Your task to perform on an android device: Open Amazon Image 0: 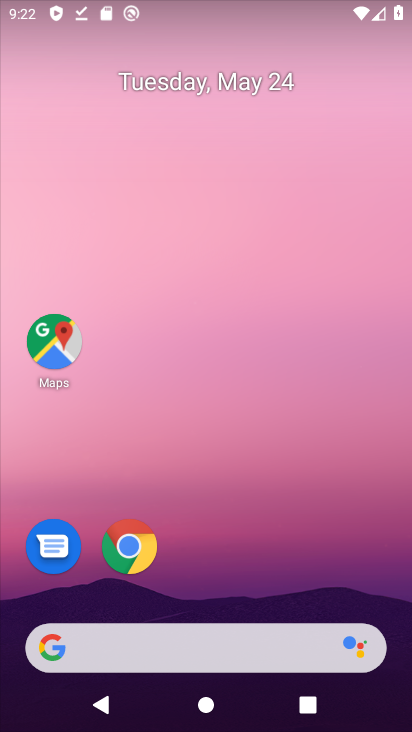
Step 0: click (123, 549)
Your task to perform on an android device: Open Amazon Image 1: 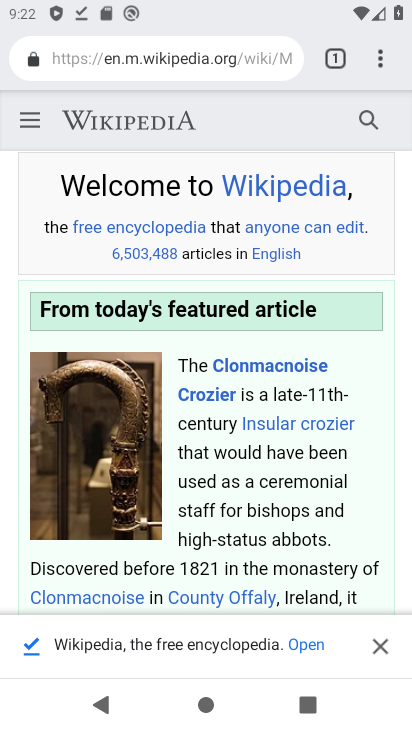
Step 1: click (382, 58)
Your task to perform on an android device: Open Amazon Image 2: 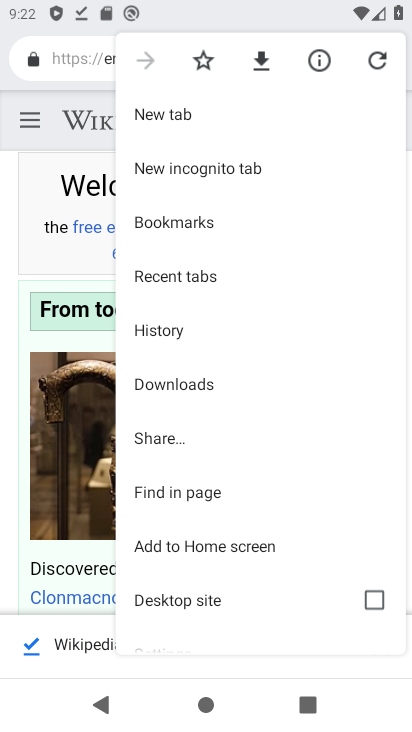
Step 2: click (172, 111)
Your task to perform on an android device: Open Amazon Image 3: 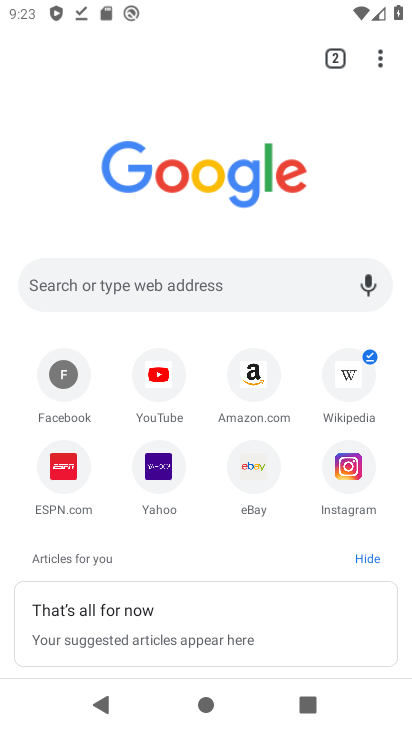
Step 3: click (257, 376)
Your task to perform on an android device: Open Amazon Image 4: 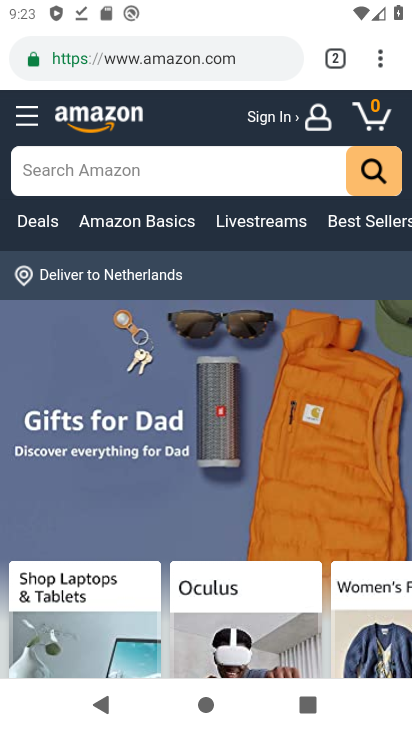
Step 4: task complete